Your task to perform on an android device: open app "Google Drive" Image 0: 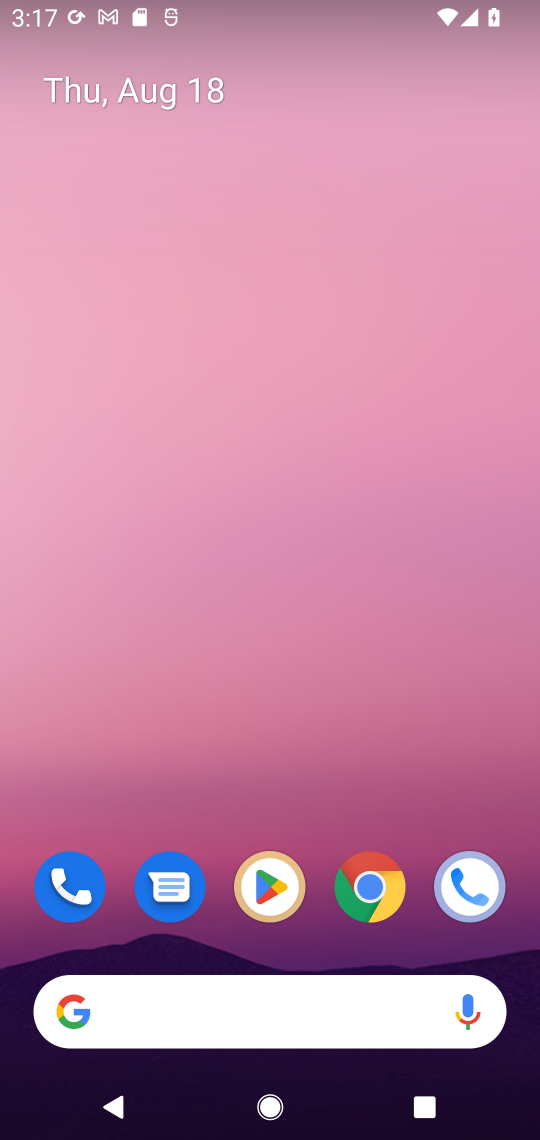
Step 0: click (267, 874)
Your task to perform on an android device: open app "Google Drive" Image 1: 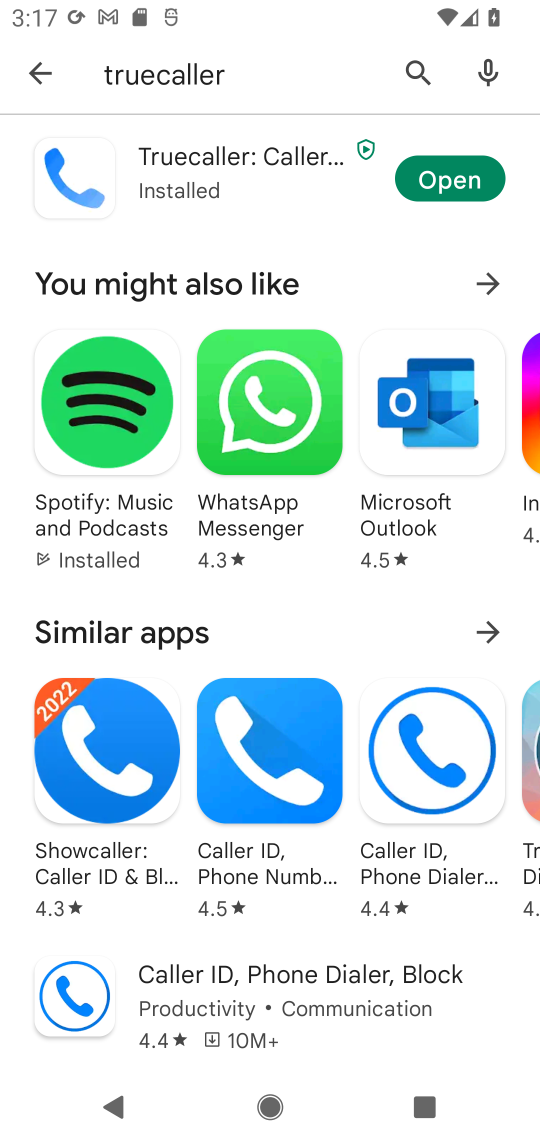
Step 1: click (406, 79)
Your task to perform on an android device: open app "Google Drive" Image 2: 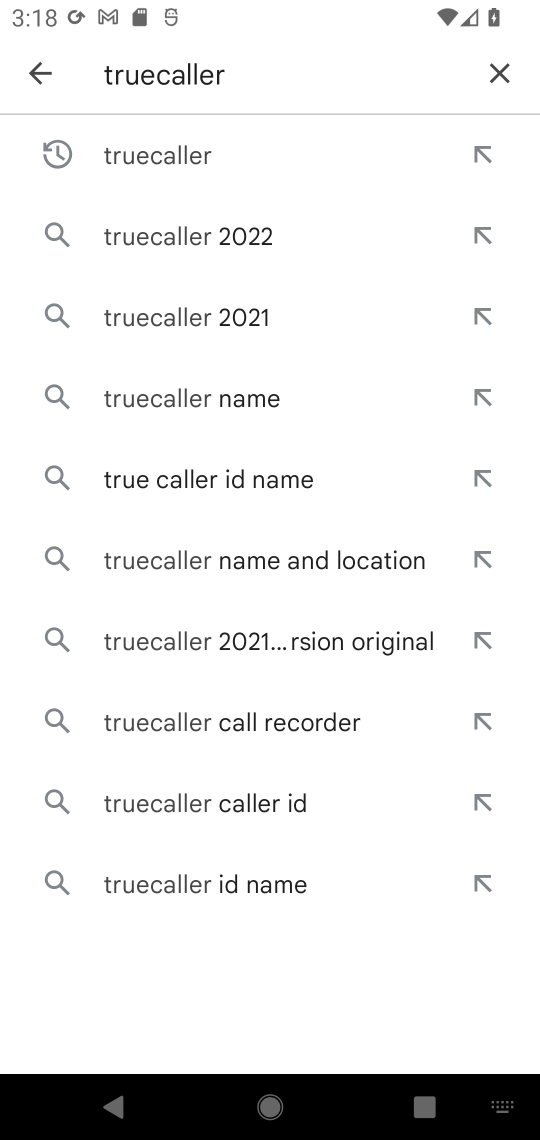
Step 2: click (504, 71)
Your task to perform on an android device: open app "Google Drive" Image 3: 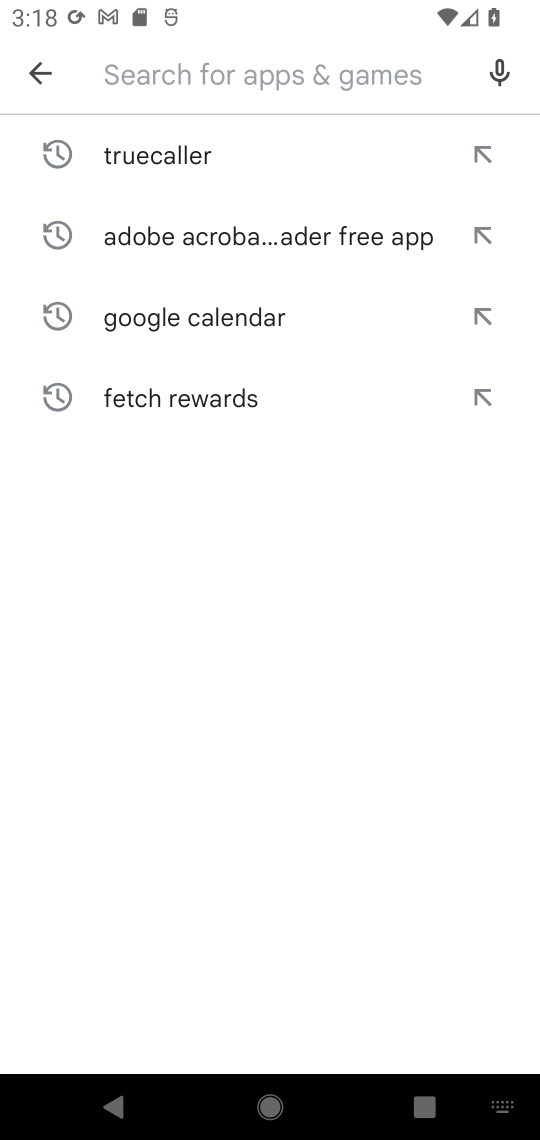
Step 3: type "Google Drive"
Your task to perform on an android device: open app "Google Drive" Image 4: 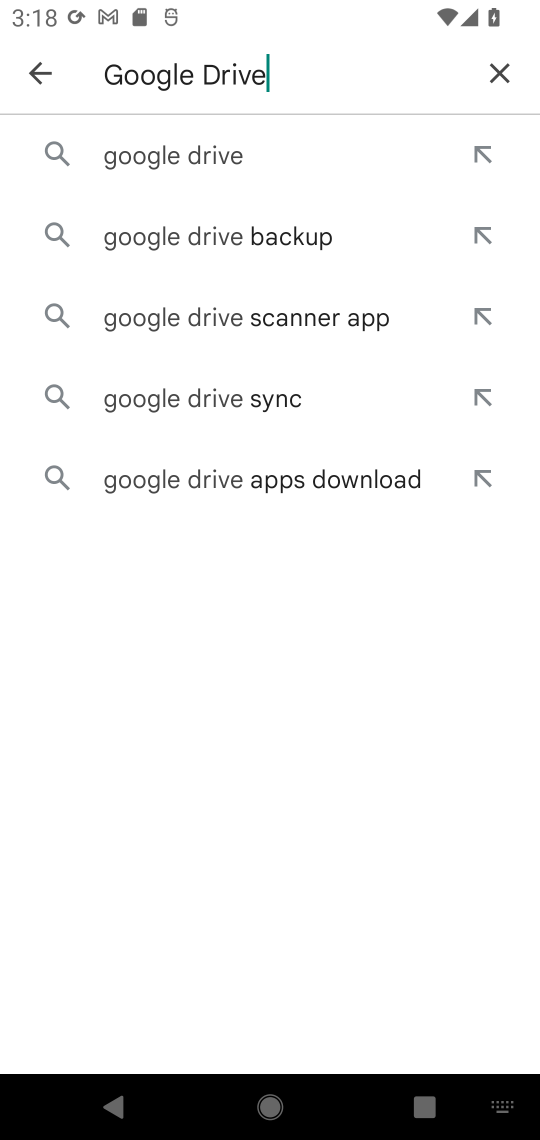
Step 4: click (281, 155)
Your task to perform on an android device: open app "Google Drive" Image 5: 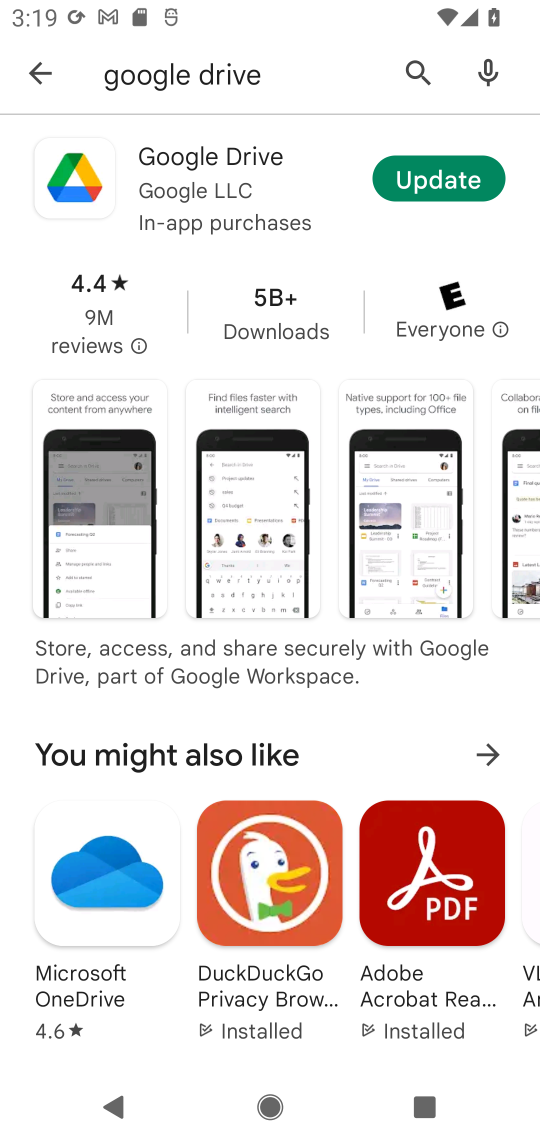
Step 5: click (441, 183)
Your task to perform on an android device: open app "Google Drive" Image 6: 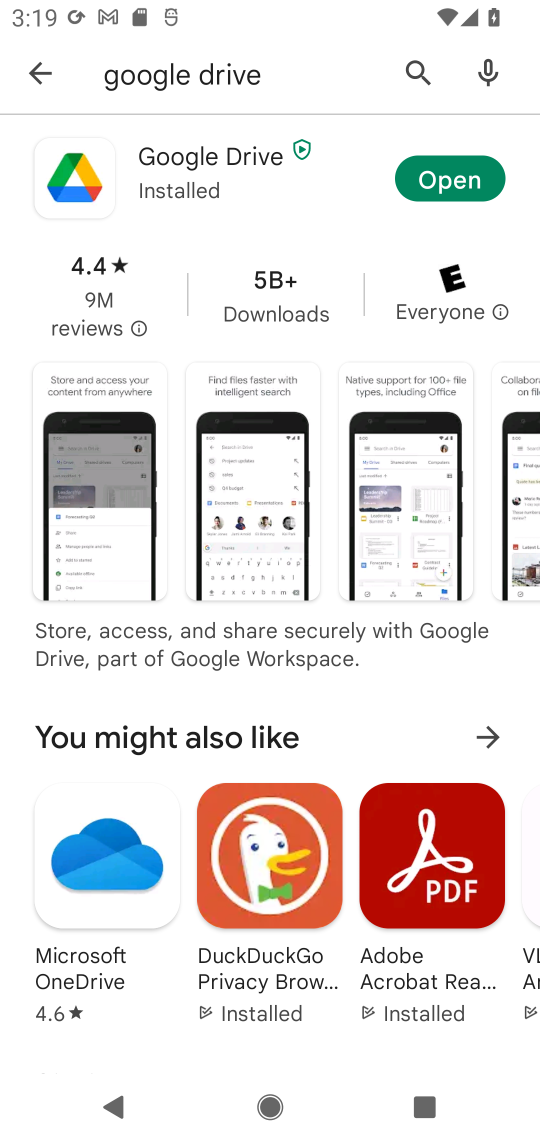
Step 6: click (439, 184)
Your task to perform on an android device: open app "Google Drive" Image 7: 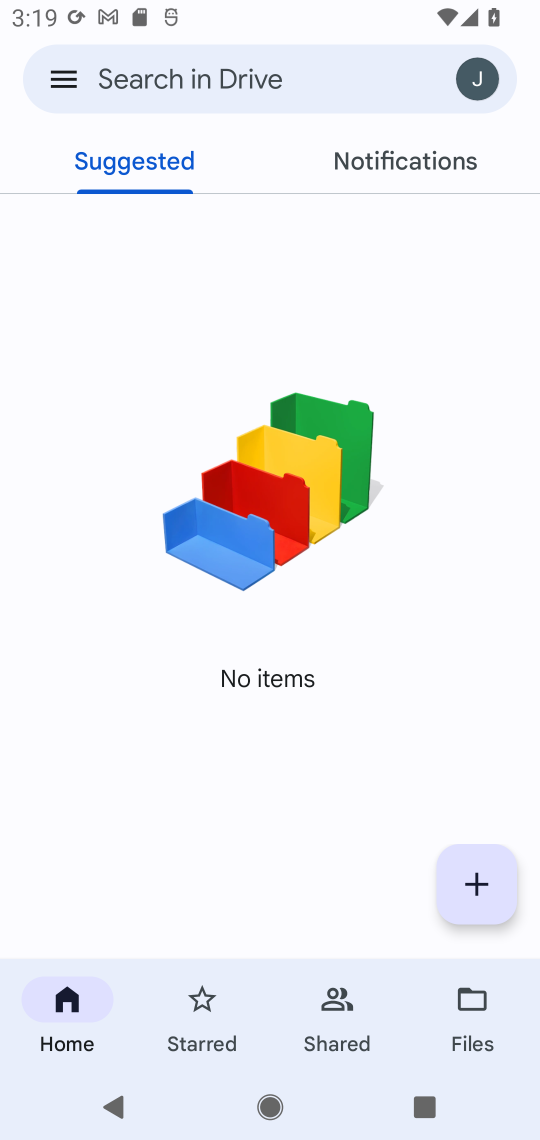
Step 7: task complete